Your task to perform on an android device: turn off airplane mode Image 0: 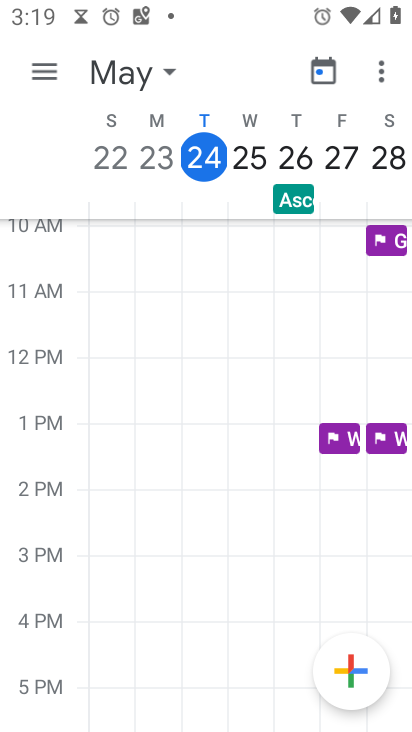
Step 0: press back button
Your task to perform on an android device: turn off airplane mode Image 1: 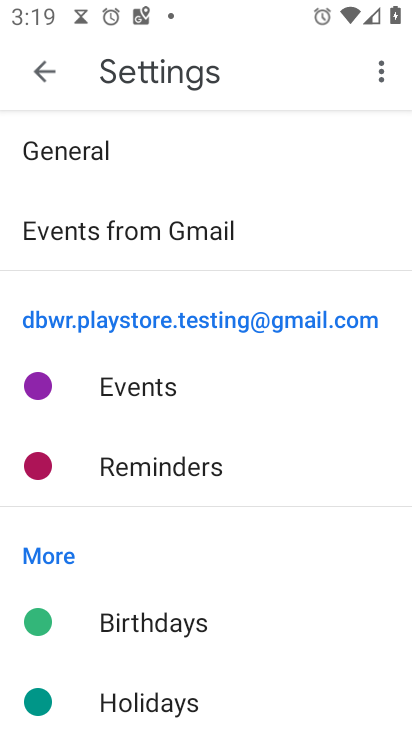
Step 1: press back button
Your task to perform on an android device: turn off airplane mode Image 2: 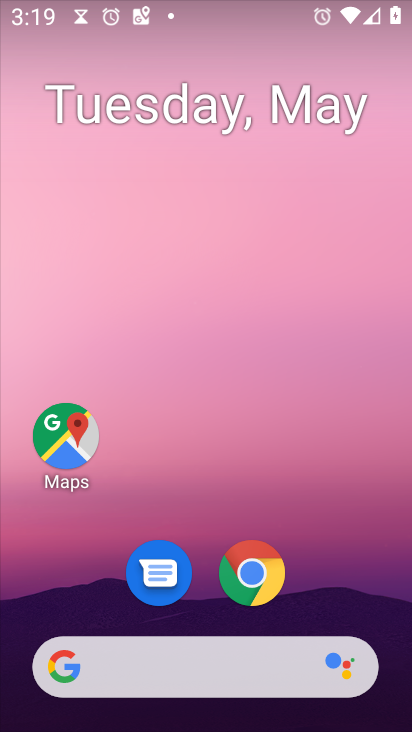
Step 2: drag from (302, 561) to (237, 0)
Your task to perform on an android device: turn off airplane mode Image 3: 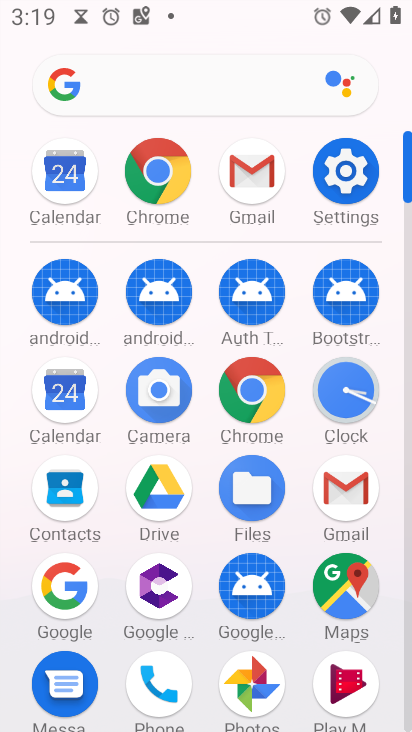
Step 3: drag from (4, 587) to (9, 243)
Your task to perform on an android device: turn off airplane mode Image 4: 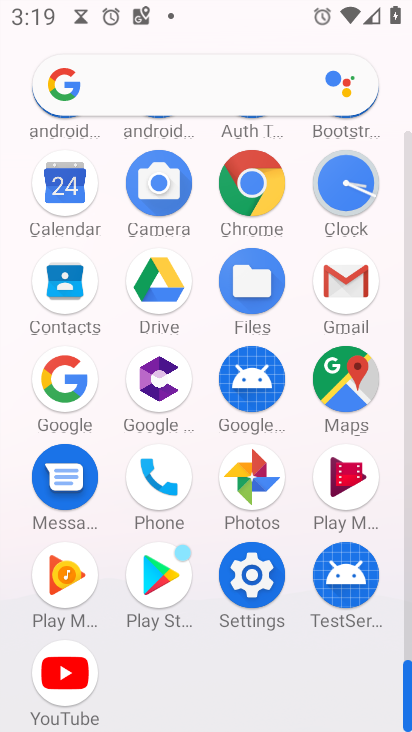
Step 4: click (259, 573)
Your task to perform on an android device: turn off airplane mode Image 5: 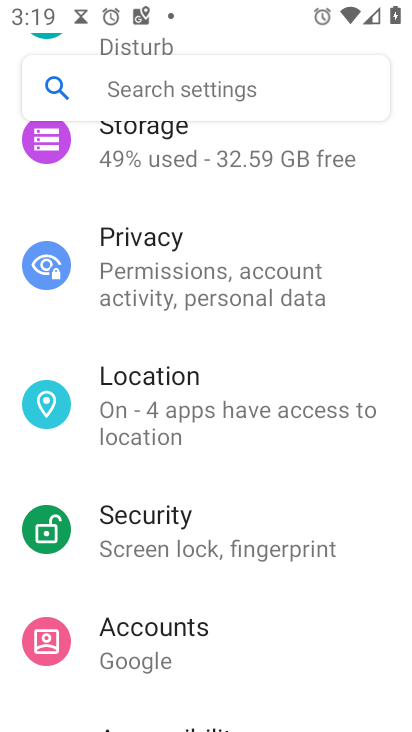
Step 5: drag from (244, 216) to (243, 648)
Your task to perform on an android device: turn off airplane mode Image 6: 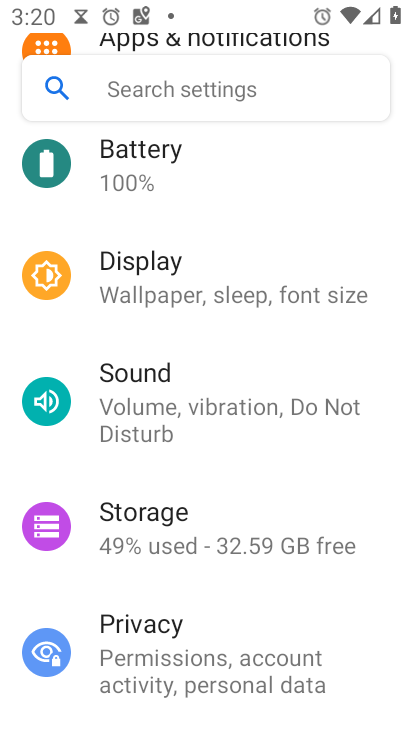
Step 6: drag from (263, 283) to (301, 637)
Your task to perform on an android device: turn off airplane mode Image 7: 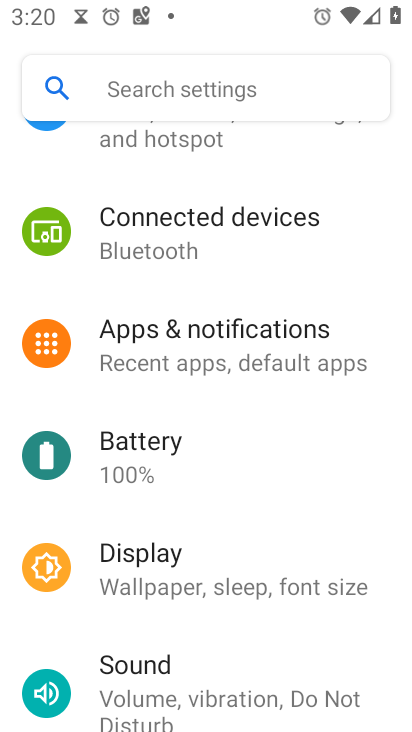
Step 7: drag from (218, 245) to (220, 575)
Your task to perform on an android device: turn off airplane mode Image 8: 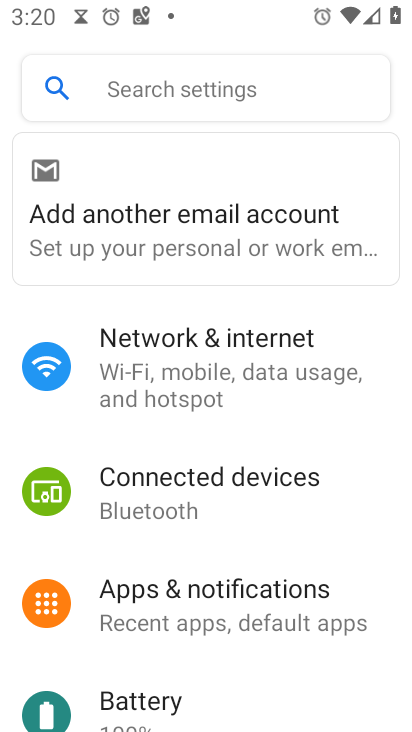
Step 8: click (230, 343)
Your task to perform on an android device: turn off airplane mode Image 9: 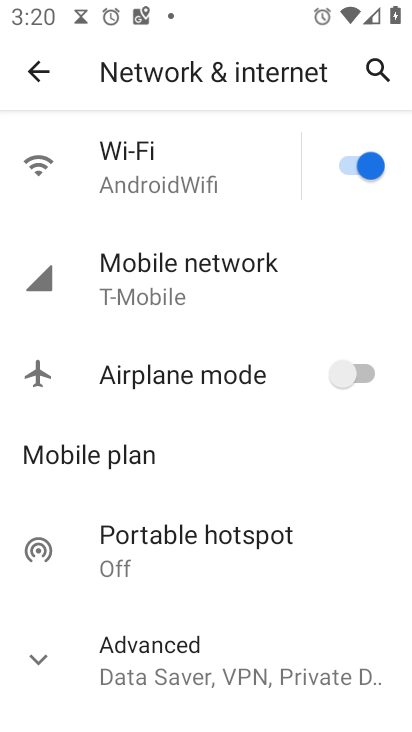
Step 9: task complete